Your task to perform on an android device: change the clock display to show seconds Image 0: 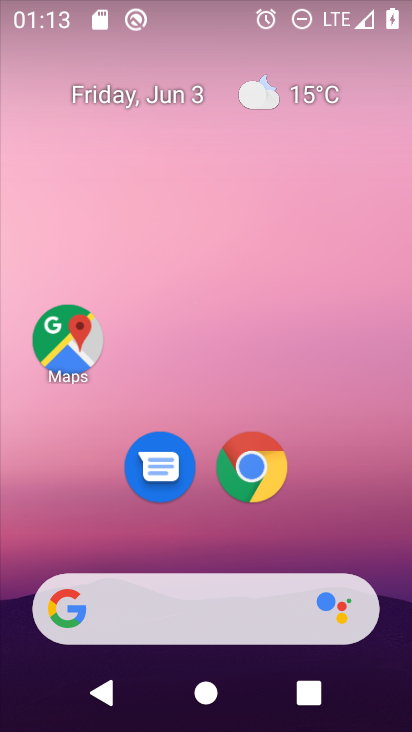
Step 0: drag from (390, 607) to (389, 144)
Your task to perform on an android device: change the clock display to show seconds Image 1: 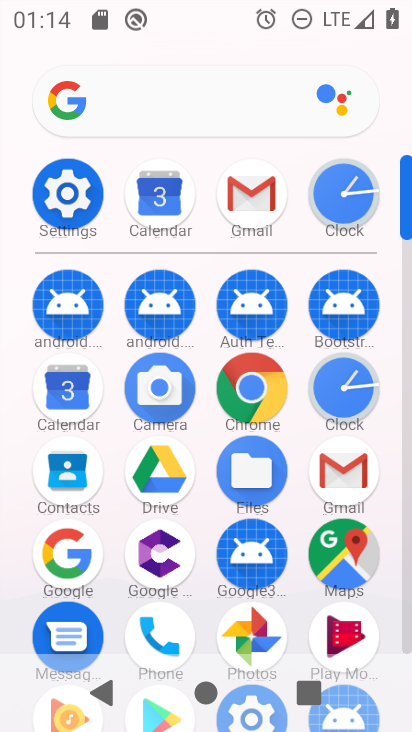
Step 1: click (407, 639)
Your task to perform on an android device: change the clock display to show seconds Image 2: 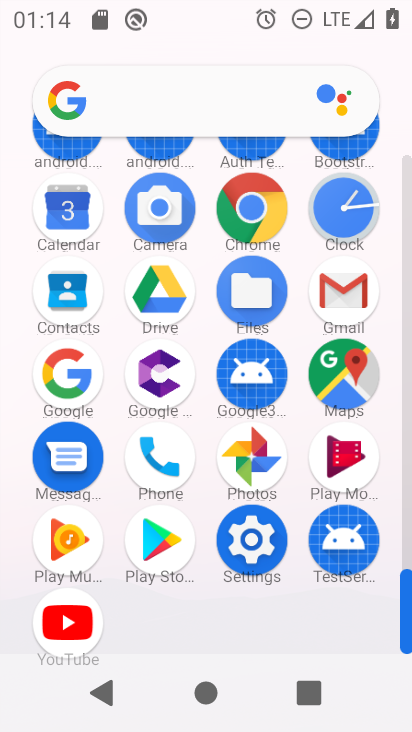
Step 2: click (345, 205)
Your task to perform on an android device: change the clock display to show seconds Image 3: 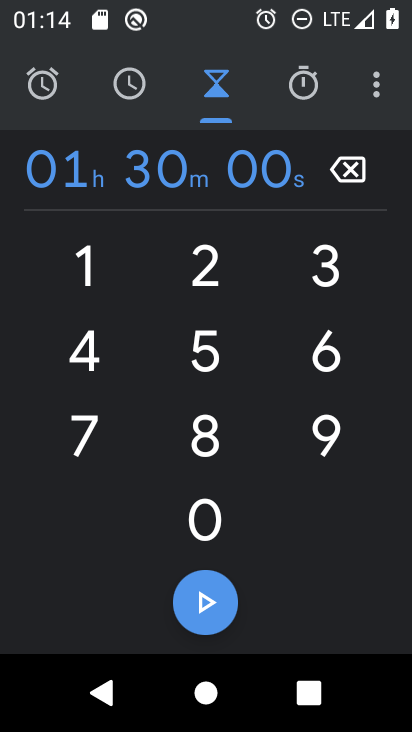
Step 3: click (376, 88)
Your task to perform on an android device: change the clock display to show seconds Image 4: 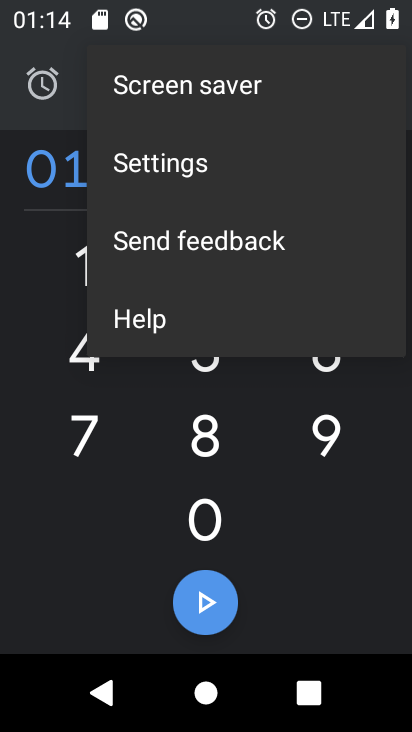
Step 4: click (147, 167)
Your task to perform on an android device: change the clock display to show seconds Image 5: 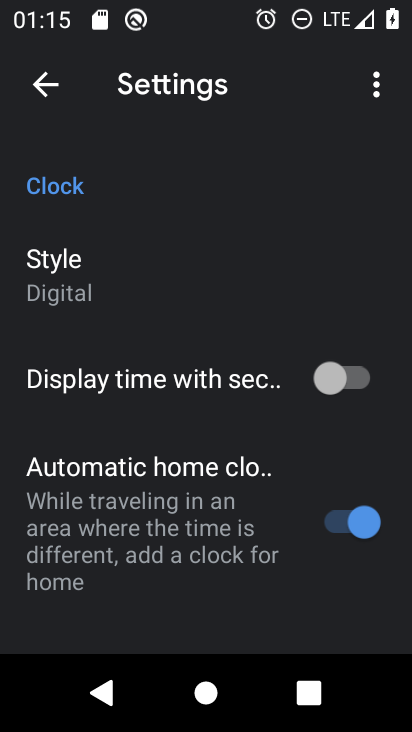
Step 5: click (355, 381)
Your task to perform on an android device: change the clock display to show seconds Image 6: 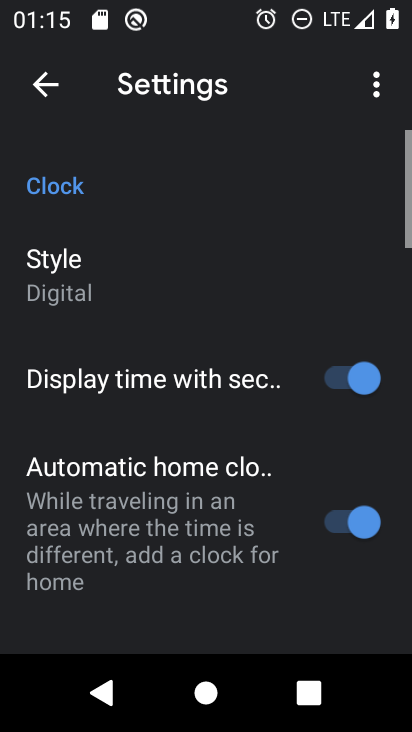
Step 6: task complete